Your task to perform on an android device: Open calendar and show me the second week of next month Image 0: 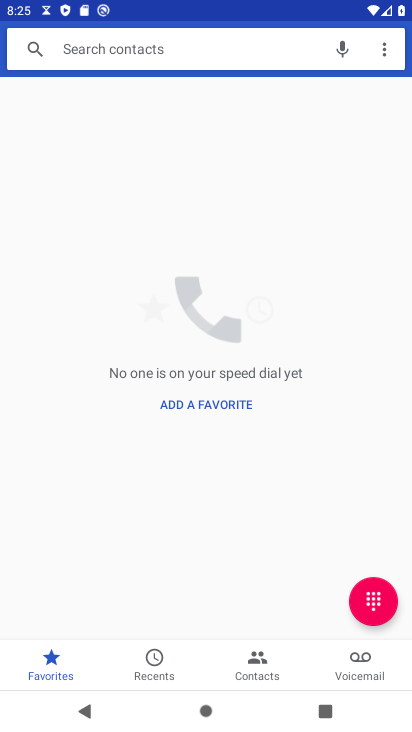
Step 0: press home button
Your task to perform on an android device: Open calendar and show me the second week of next month Image 1: 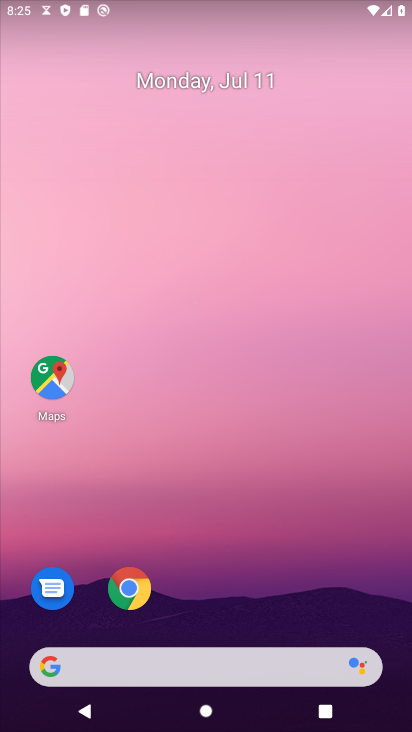
Step 1: drag from (252, 581) to (257, 193)
Your task to perform on an android device: Open calendar and show me the second week of next month Image 2: 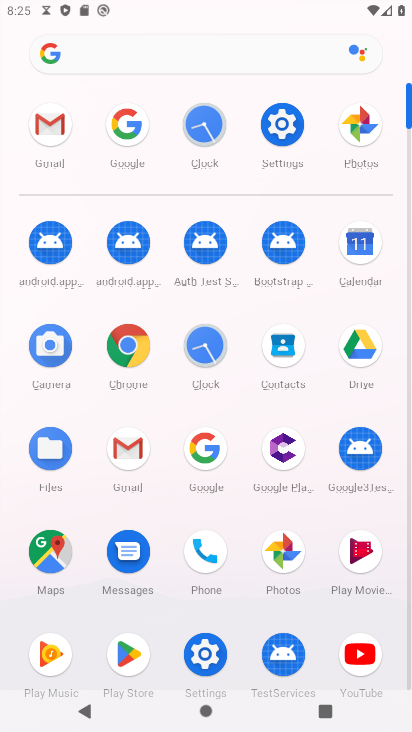
Step 2: click (367, 251)
Your task to perform on an android device: Open calendar and show me the second week of next month Image 3: 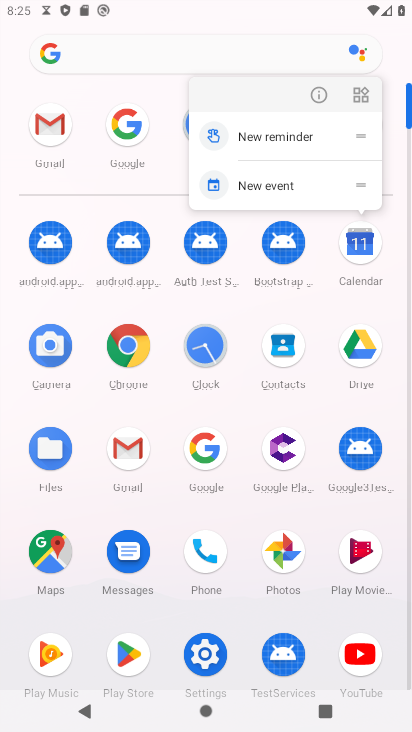
Step 3: click (367, 251)
Your task to perform on an android device: Open calendar and show me the second week of next month Image 4: 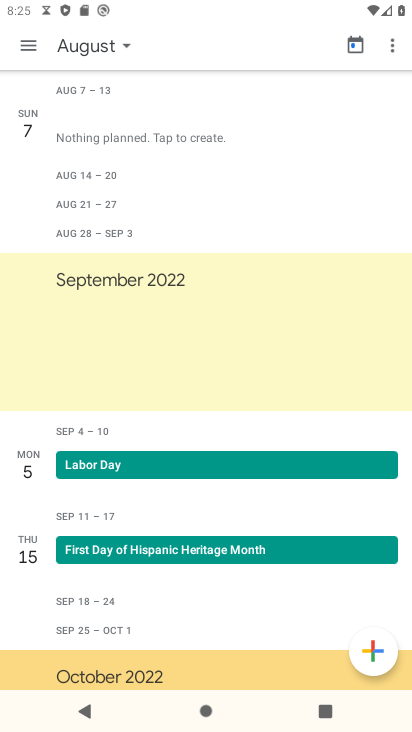
Step 4: click (33, 43)
Your task to perform on an android device: Open calendar and show me the second week of next month Image 5: 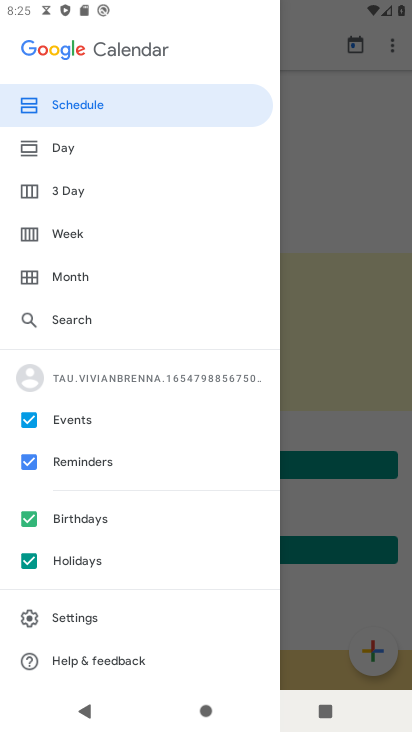
Step 5: click (84, 270)
Your task to perform on an android device: Open calendar and show me the second week of next month Image 6: 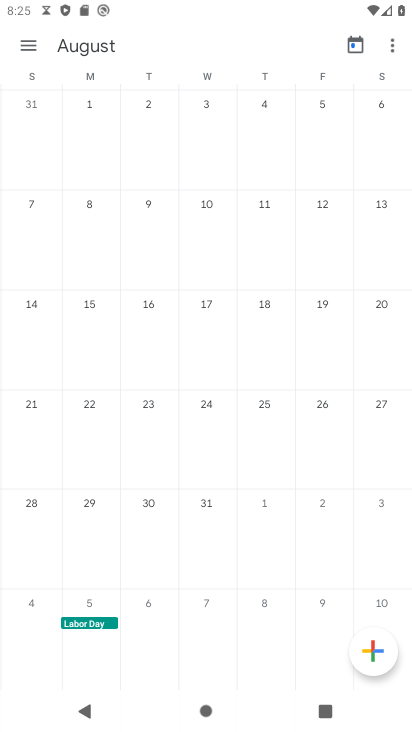
Step 6: click (34, 231)
Your task to perform on an android device: Open calendar and show me the second week of next month Image 7: 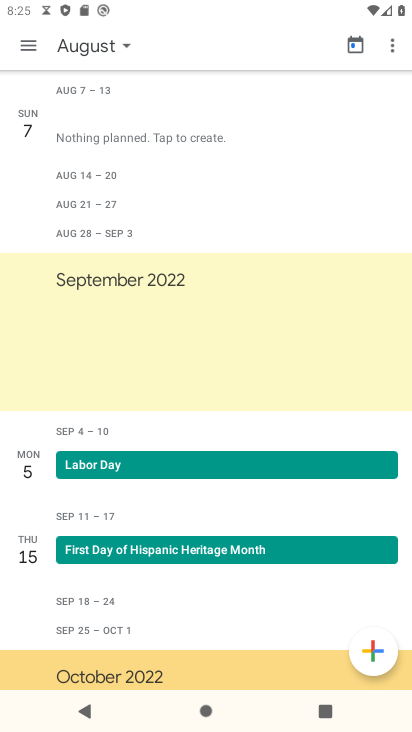
Step 7: task complete